Your task to perform on an android device: set the stopwatch Image 0: 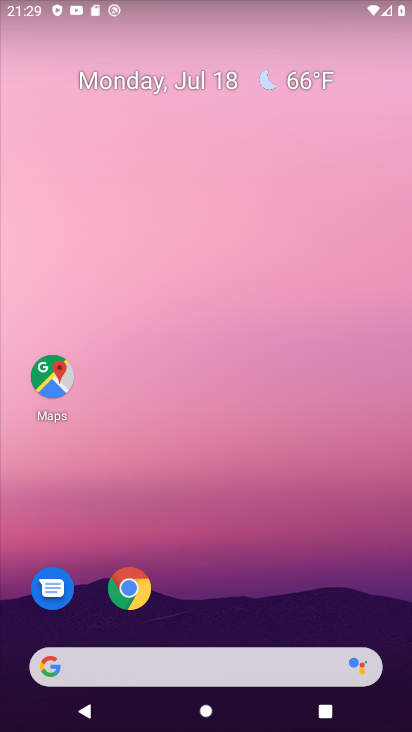
Step 0: press home button
Your task to perform on an android device: set the stopwatch Image 1: 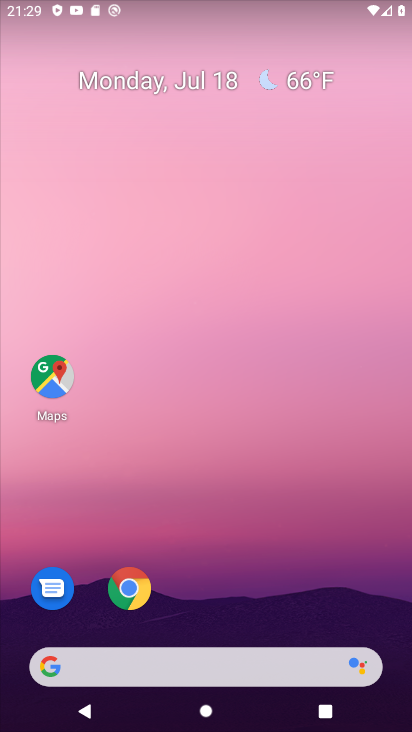
Step 1: drag from (202, 573) to (316, 73)
Your task to perform on an android device: set the stopwatch Image 2: 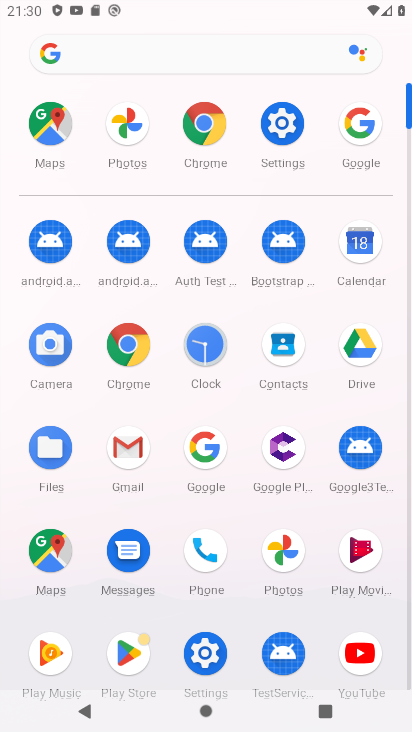
Step 2: click (218, 355)
Your task to perform on an android device: set the stopwatch Image 3: 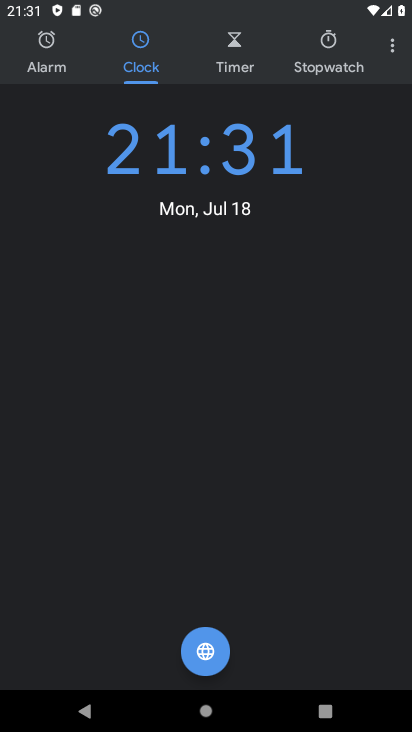
Step 3: click (300, 65)
Your task to perform on an android device: set the stopwatch Image 4: 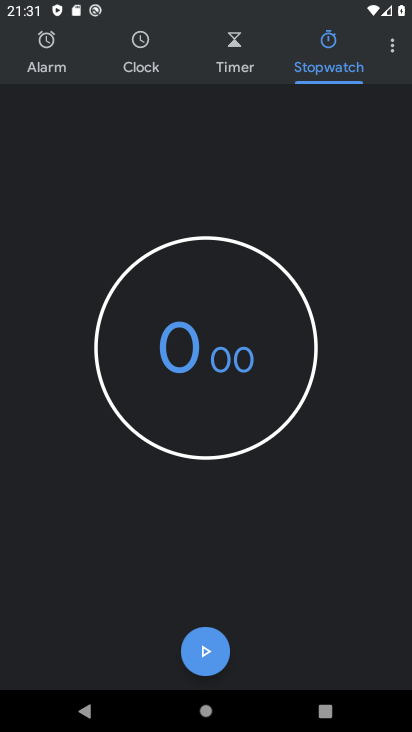
Step 4: click (219, 649)
Your task to perform on an android device: set the stopwatch Image 5: 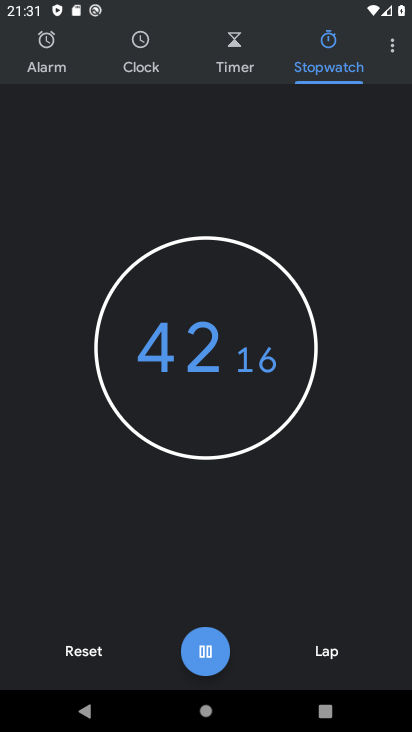
Step 5: task complete